Your task to perform on an android device: check android version Image 0: 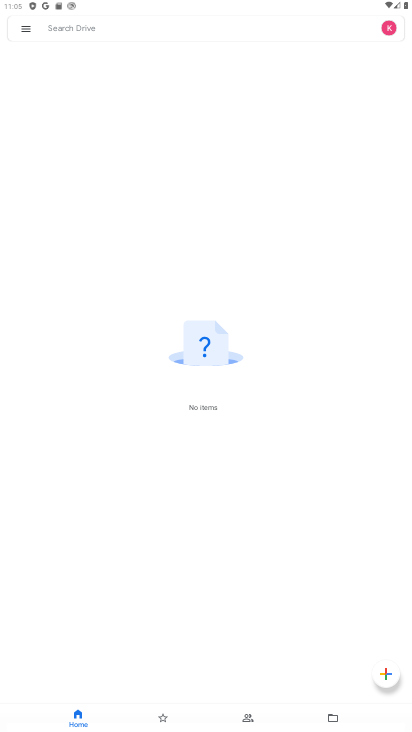
Step 0: press home button
Your task to perform on an android device: check android version Image 1: 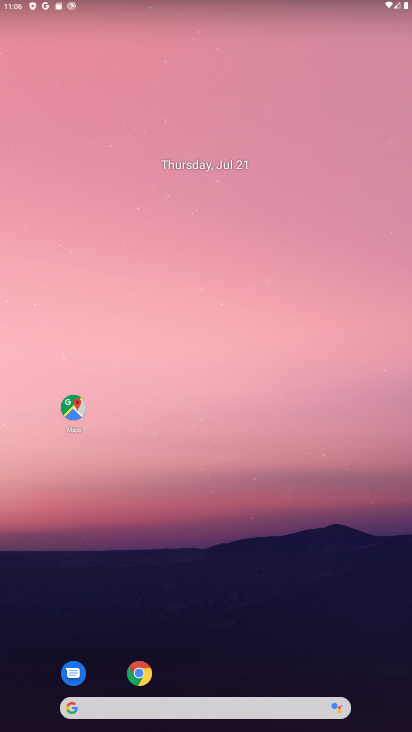
Step 1: drag from (218, 672) to (229, 85)
Your task to perform on an android device: check android version Image 2: 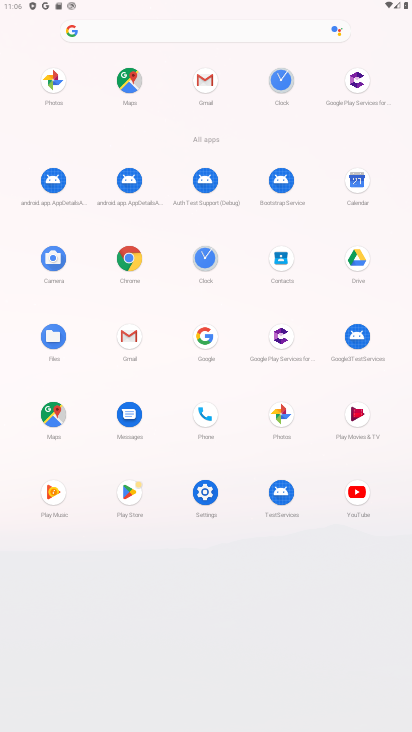
Step 2: click (201, 484)
Your task to perform on an android device: check android version Image 3: 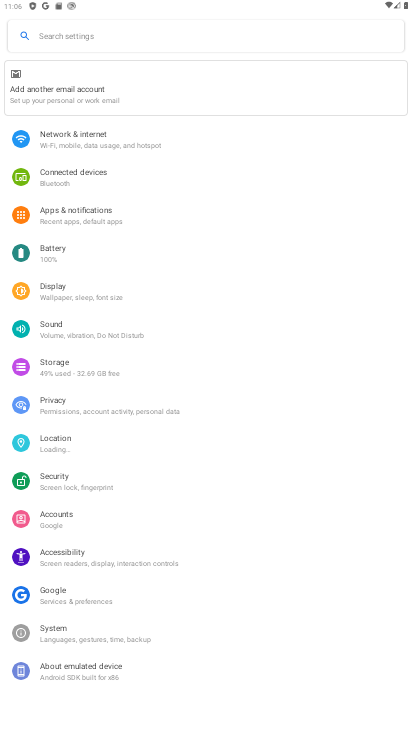
Step 3: click (135, 667)
Your task to perform on an android device: check android version Image 4: 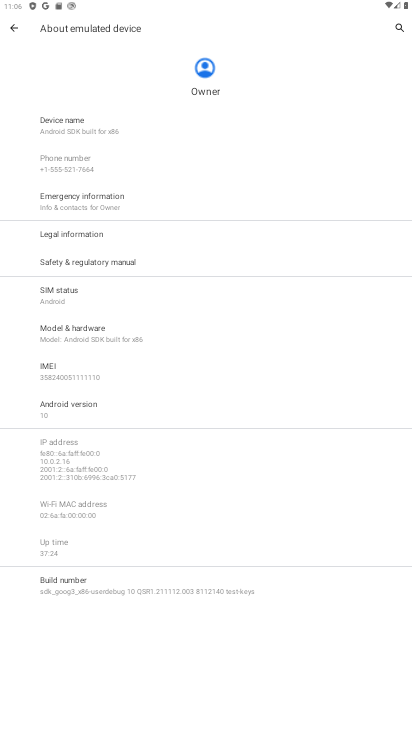
Step 4: click (71, 416)
Your task to perform on an android device: check android version Image 5: 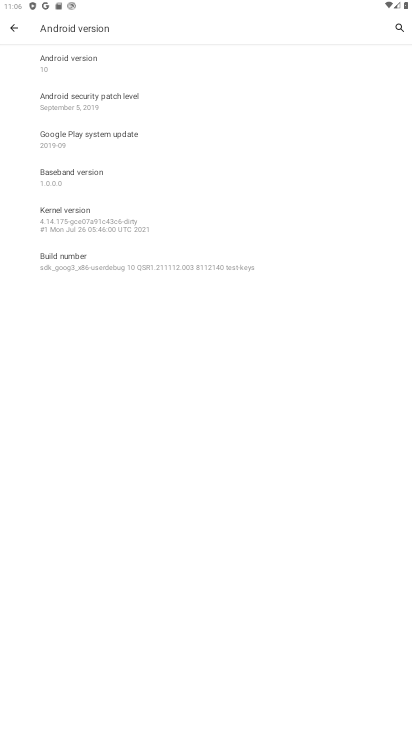
Step 5: task complete